Your task to perform on an android device: Is it going to rain today? Image 0: 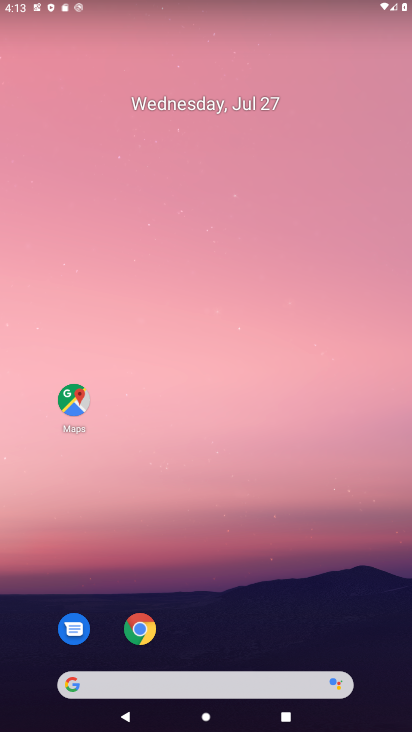
Step 0: click (213, 673)
Your task to perform on an android device: Is it going to rain today? Image 1: 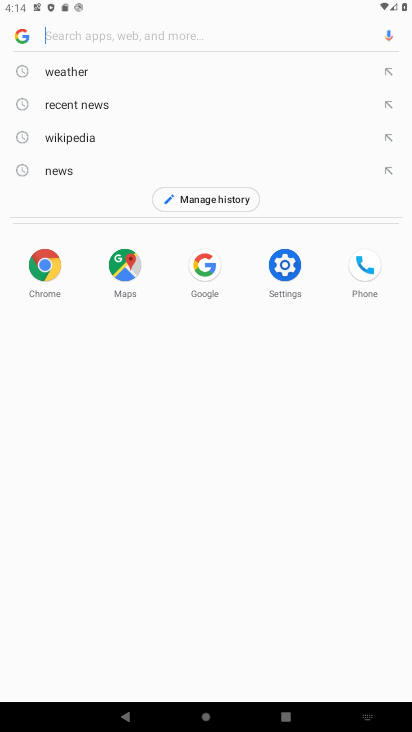
Step 1: click (65, 70)
Your task to perform on an android device: Is it going to rain today? Image 2: 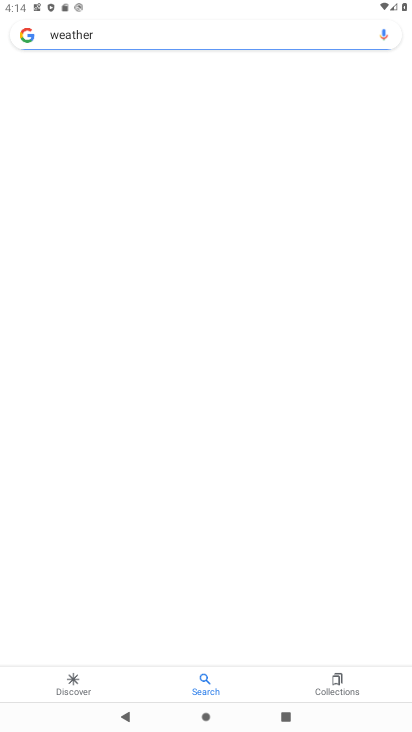
Step 2: task complete